Your task to perform on an android device: manage bookmarks in the chrome app Image 0: 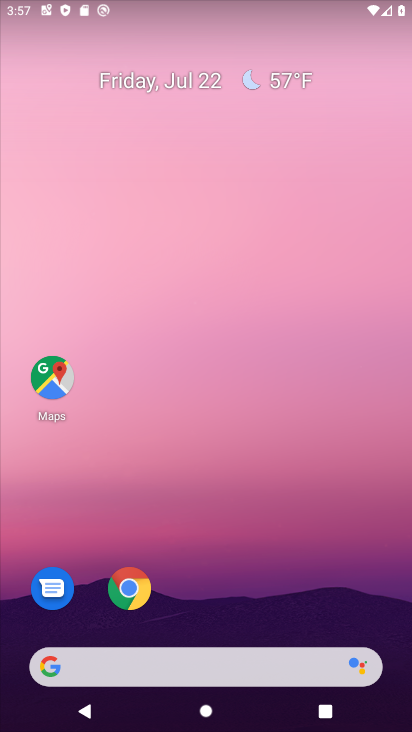
Step 0: click (135, 587)
Your task to perform on an android device: manage bookmarks in the chrome app Image 1: 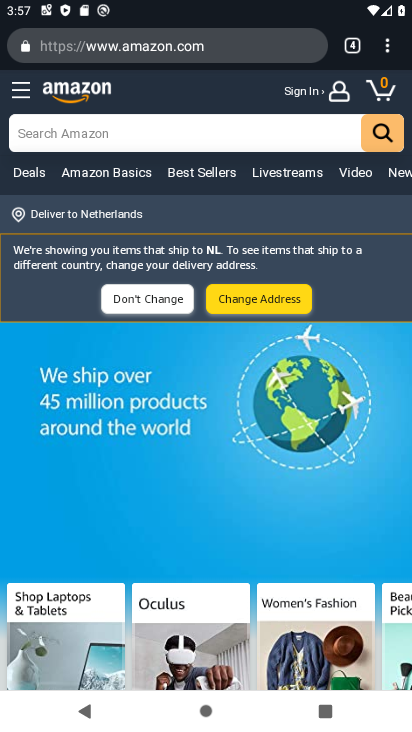
Step 1: click (393, 52)
Your task to perform on an android device: manage bookmarks in the chrome app Image 2: 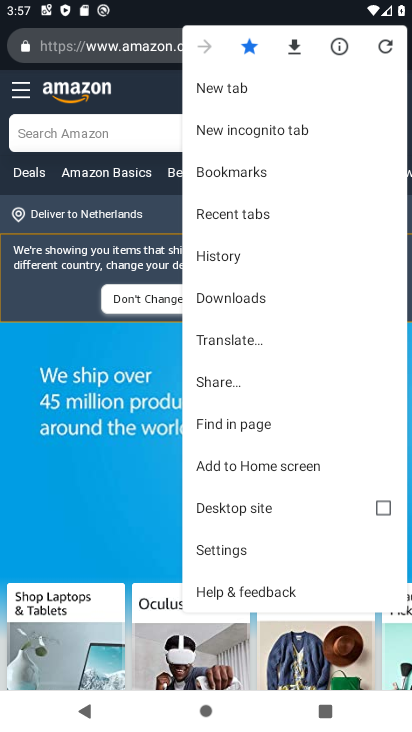
Step 2: click (218, 166)
Your task to perform on an android device: manage bookmarks in the chrome app Image 3: 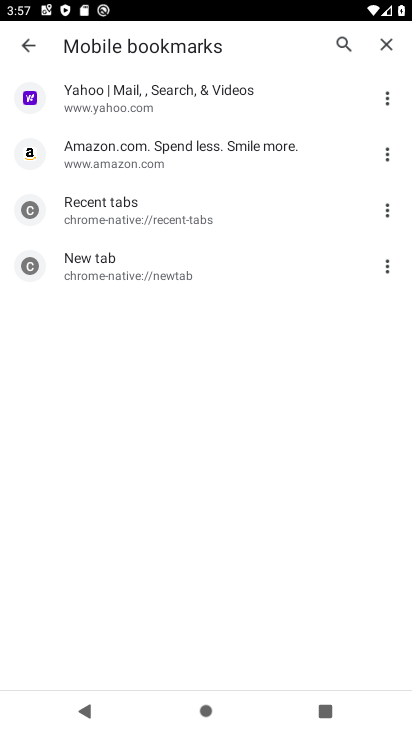
Step 3: click (387, 105)
Your task to perform on an android device: manage bookmarks in the chrome app Image 4: 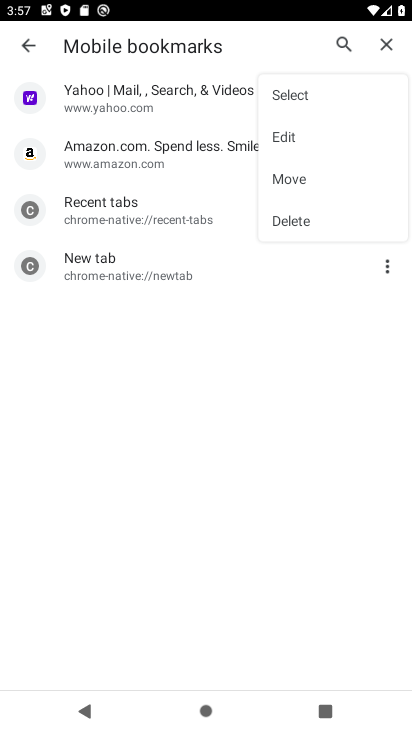
Step 4: click (291, 137)
Your task to perform on an android device: manage bookmarks in the chrome app Image 5: 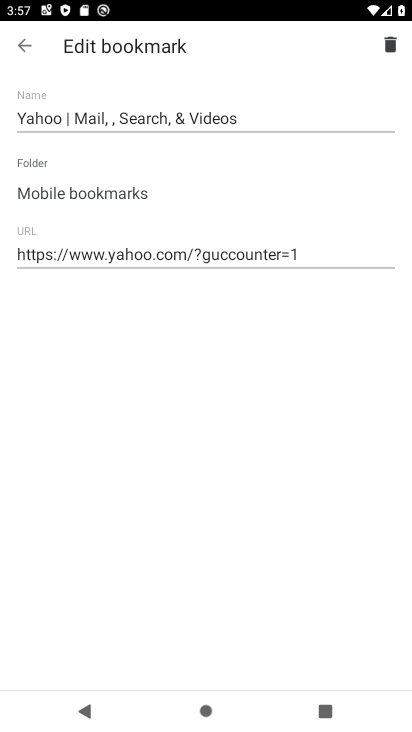
Step 5: task complete